Your task to perform on an android device: turn off smart reply in the gmail app Image 0: 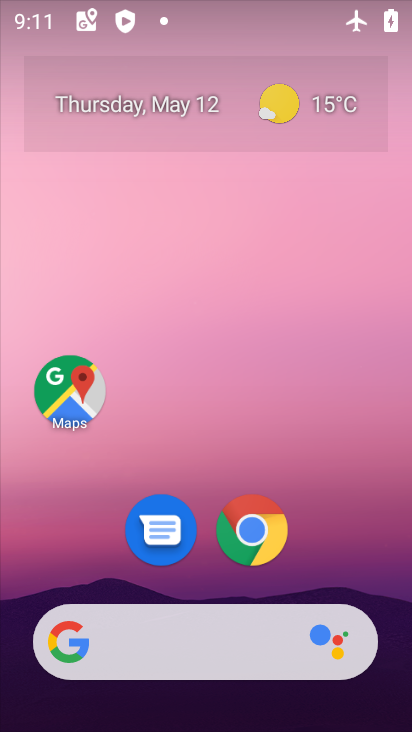
Step 0: drag from (201, 707) to (208, 187)
Your task to perform on an android device: turn off smart reply in the gmail app Image 1: 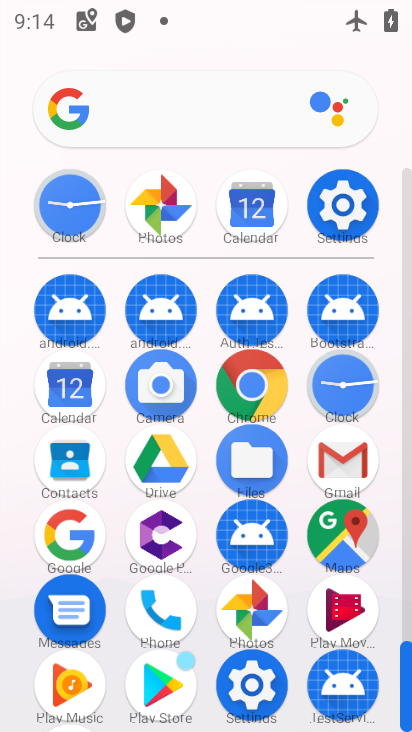
Step 1: click (351, 478)
Your task to perform on an android device: turn off smart reply in the gmail app Image 2: 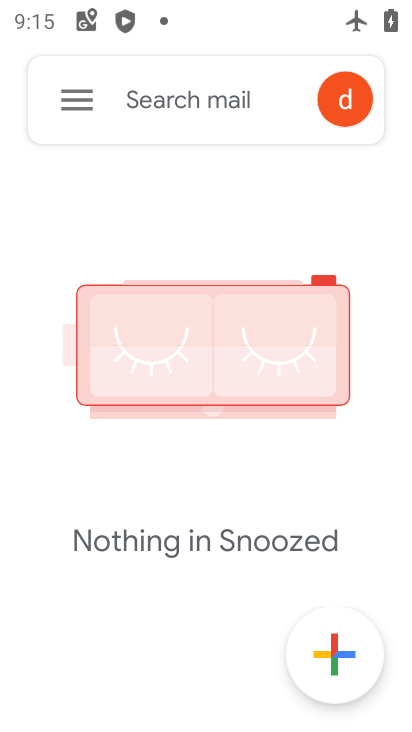
Step 2: click (69, 105)
Your task to perform on an android device: turn off smart reply in the gmail app Image 3: 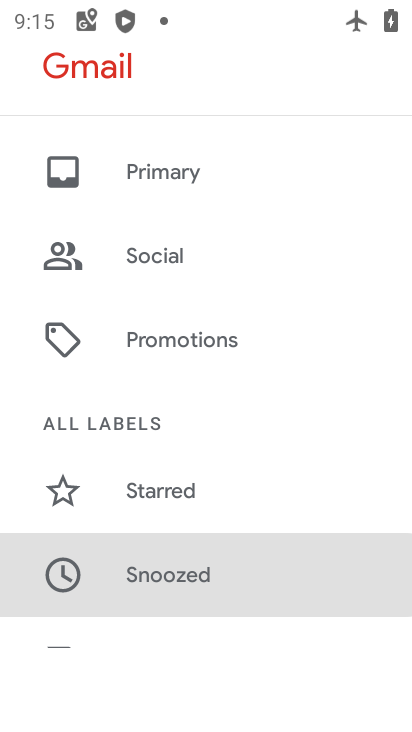
Step 3: drag from (163, 596) to (194, 130)
Your task to perform on an android device: turn off smart reply in the gmail app Image 4: 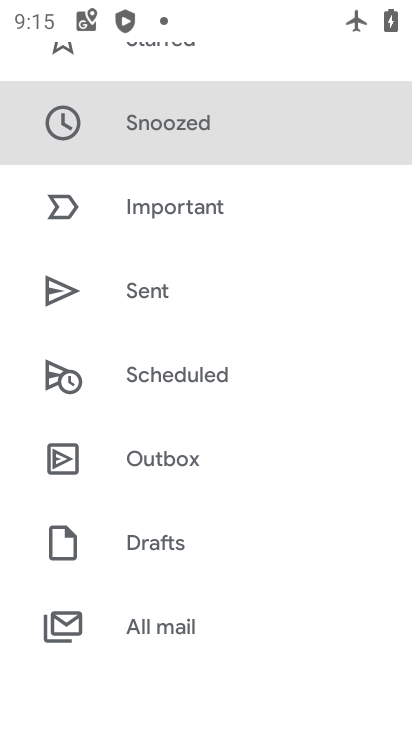
Step 4: drag from (191, 552) to (110, 63)
Your task to perform on an android device: turn off smart reply in the gmail app Image 5: 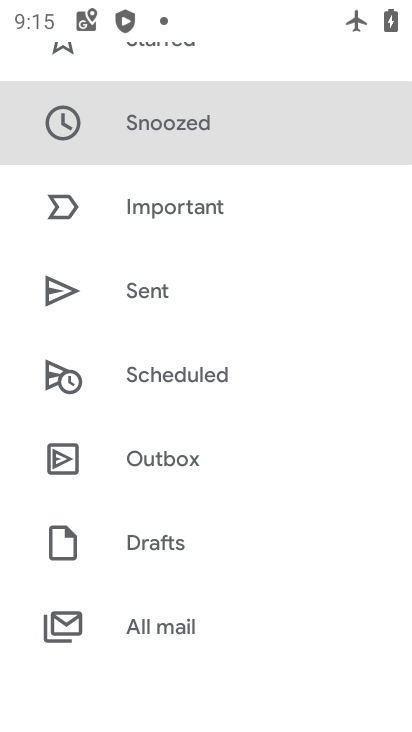
Step 5: drag from (238, 609) to (88, 12)
Your task to perform on an android device: turn off smart reply in the gmail app Image 6: 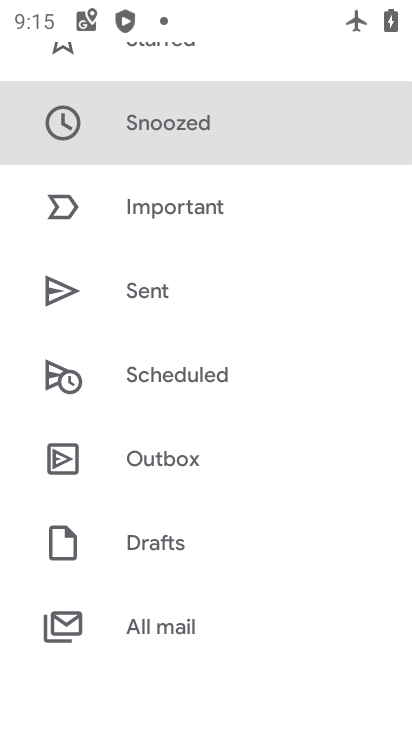
Step 6: drag from (186, 594) to (47, 27)
Your task to perform on an android device: turn off smart reply in the gmail app Image 7: 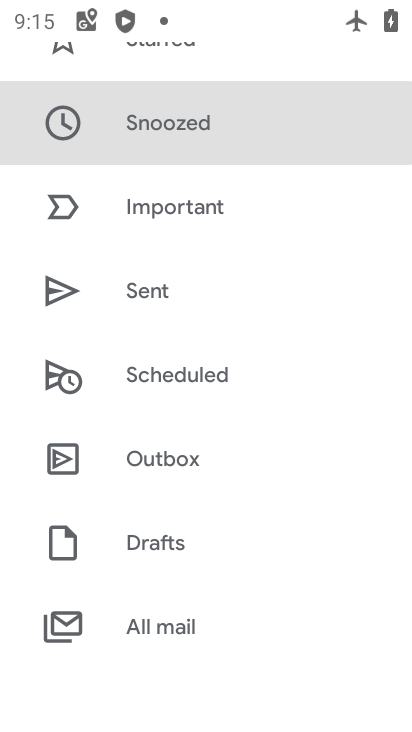
Step 7: drag from (143, 574) to (44, 21)
Your task to perform on an android device: turn off smart reply in the gmail app Image 8: 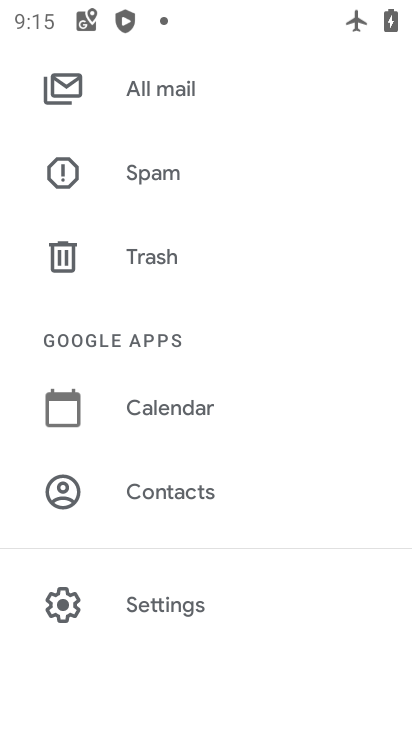
Step 8: click (171, 601)
Your task to perform on an android device: turn off smart reply in the gmail app Image 9: 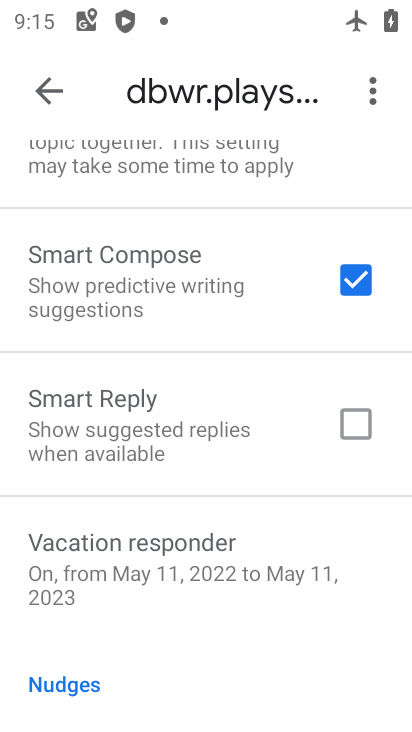
Step 9: task complete